Your task to perform on an android device: set default search engine in the chrome app Image 0: 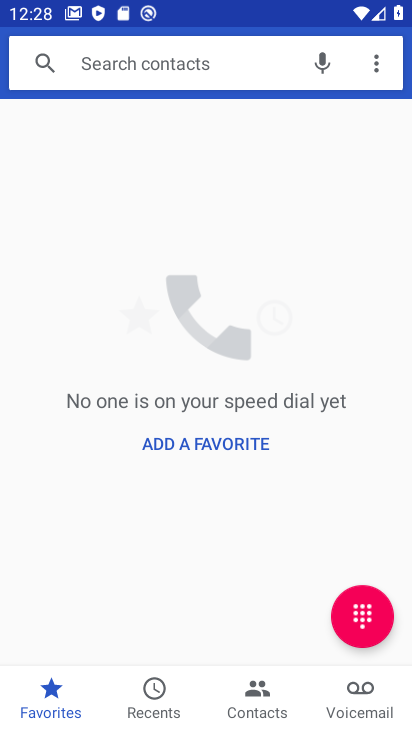
Step 0: press home button
Your task to perform on an android device: set default search engine in the chrome app Image 1: 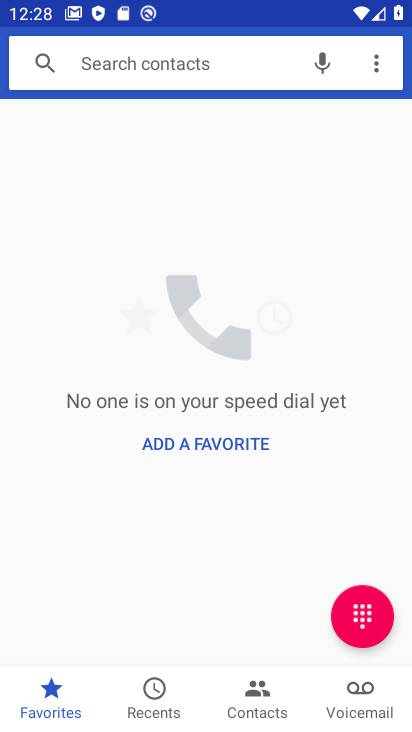
Step 1: press home button
Your task to perform on an android device: set default search engine in the chrome app Image 2: 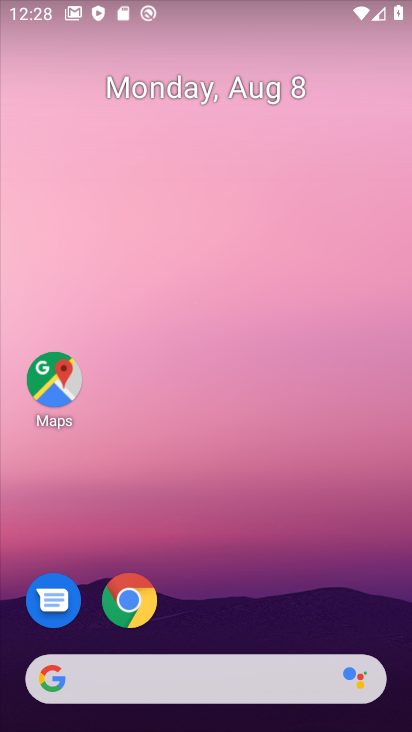
Step 2: drag from (291, 564) to (251, 191)
Your task to perform on an android device: set default search engine in the chrome app Image 3: 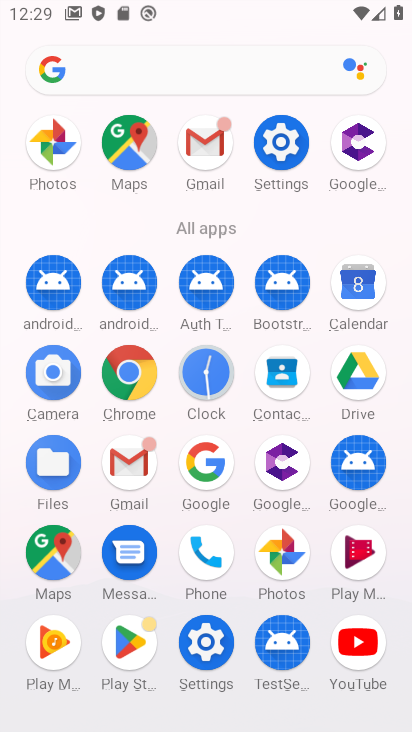
Step 3: click (136, 375)
Your task to perform on an android device: set default search engine in the chrome app Image 4: 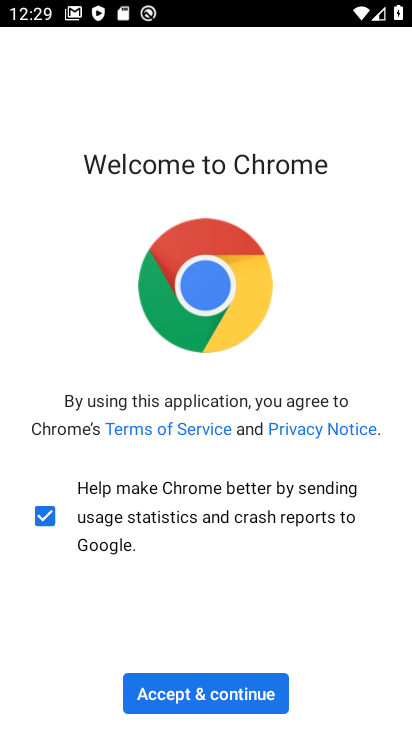
Step 4: click (216, 710)
Your task to perform on an android device: set default search engine in the chrome app Image 5: 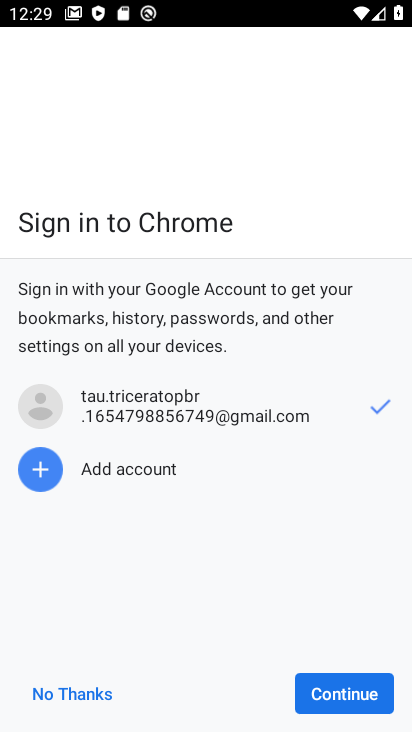
Step 5: click (329, 694)
Your task to perform on an android device: set default search engine in the chrome app Image 6: 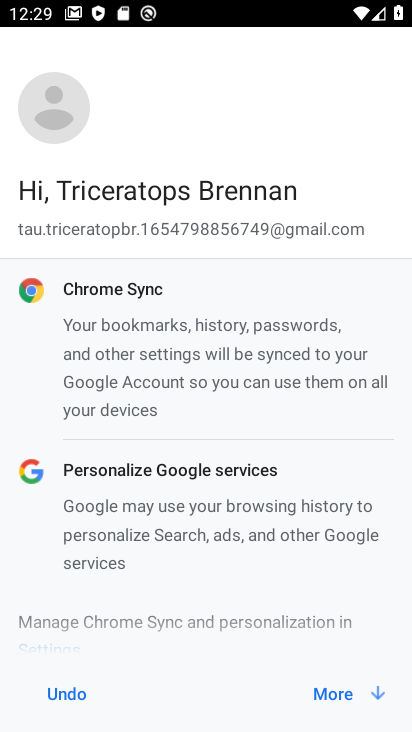
Step 6: click (329, 694)
Your task to perform on an android device: set default search engine in the chrome app Image 7: 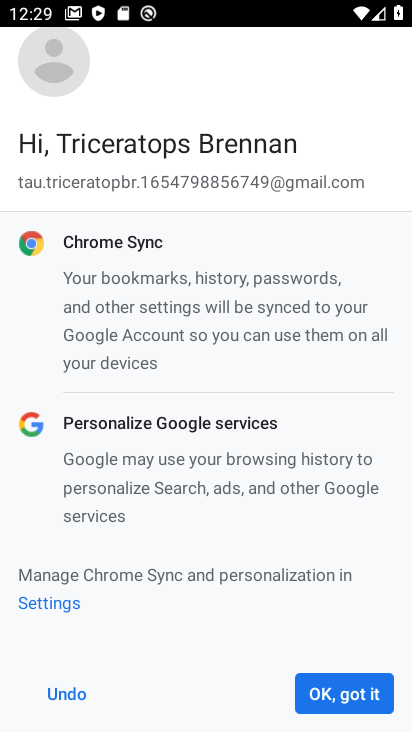
Step 7: click (329, 694)
Your task to perform on an android device: set default search engine in the chrome app Image 8: 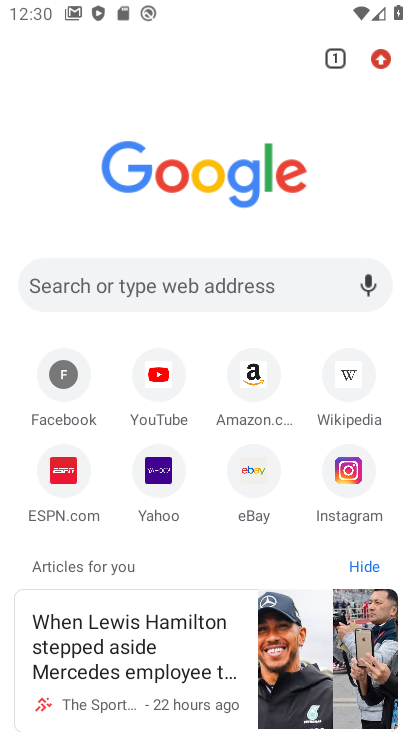
Step 8: drag from (380, 60) to (142, 555)
Your task to perform on an android device: set default search engine in the chrome app Image 9: 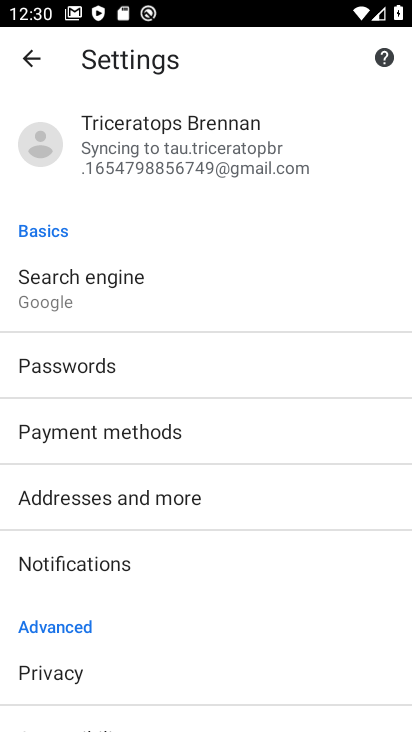
Step 9: click (180, 311)
Your task to perform on an android device: set default search engine in the chrome app Image 10: 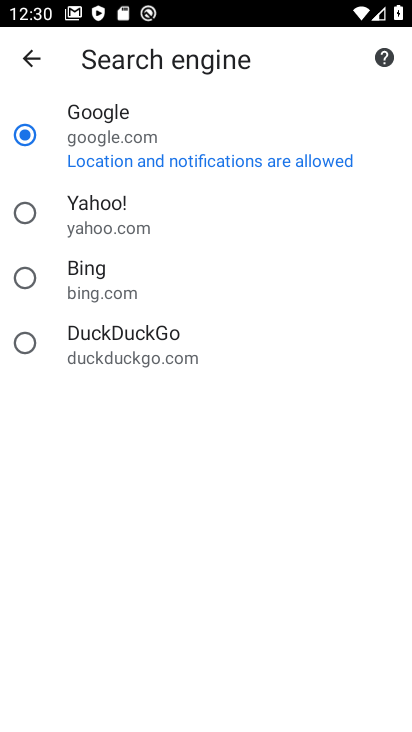
Step 10: task complete